Your task to perform on an android device: Go to Google Image 0: 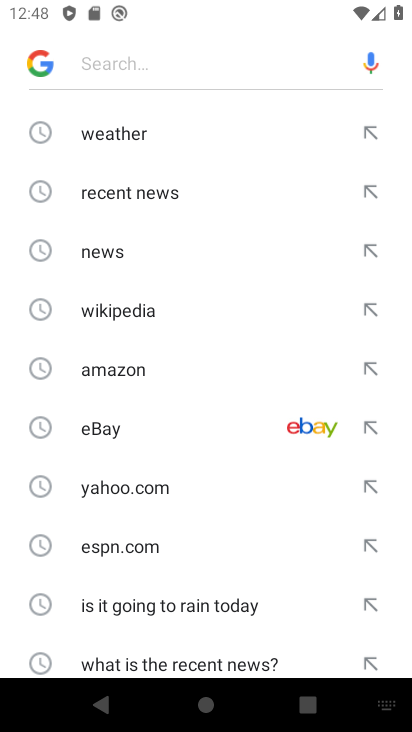
Step 0: press home button
Your task to perform on an android device: Go to Google Image 1: 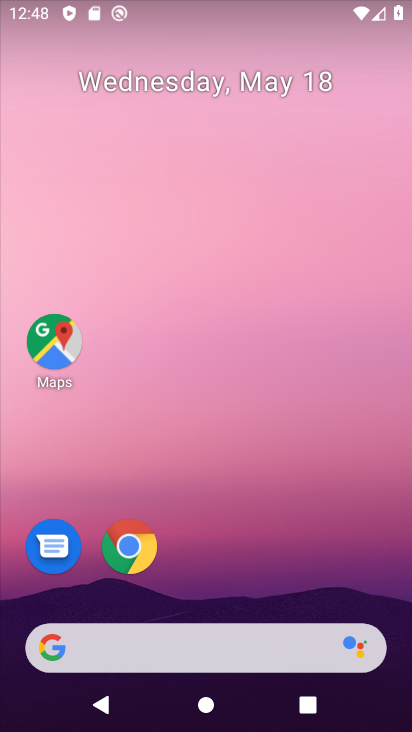
Step 1: drag from (264, 554) to (340, 34)
Your task to perform on an android device: Go to Google Image 2: 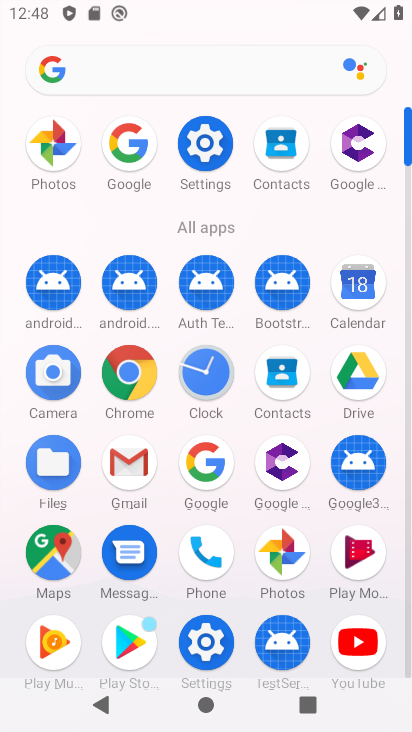
Step 2: click (212, 473)
Your task to perform on an android device: Go to Google Image 3: 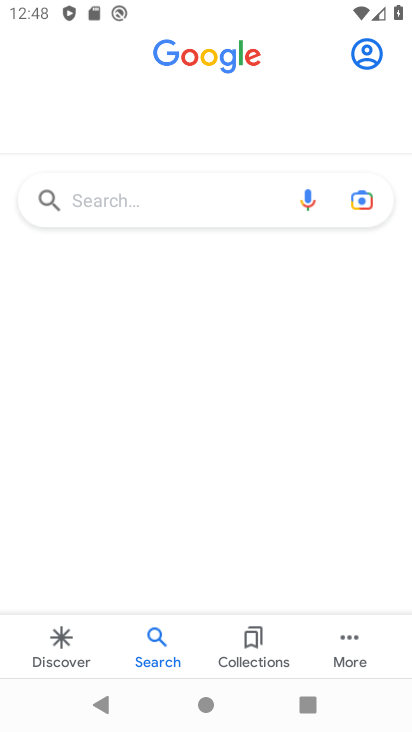
Step 3: task complete